Your task to perform on an android device: check battery use Image 0: 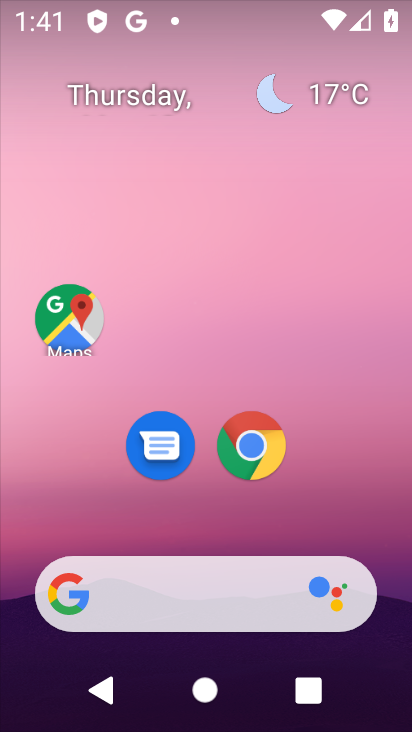
Step 0: drag from (318, 495) to (273, 39)
Your task to perform on an android device: check battery use Image 1: 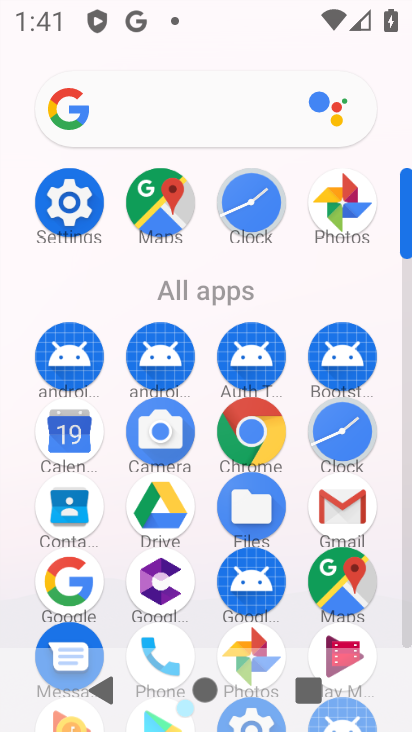
Step 1: click (78, 207)
Your task to perform on an android device: check battery use Image 2: 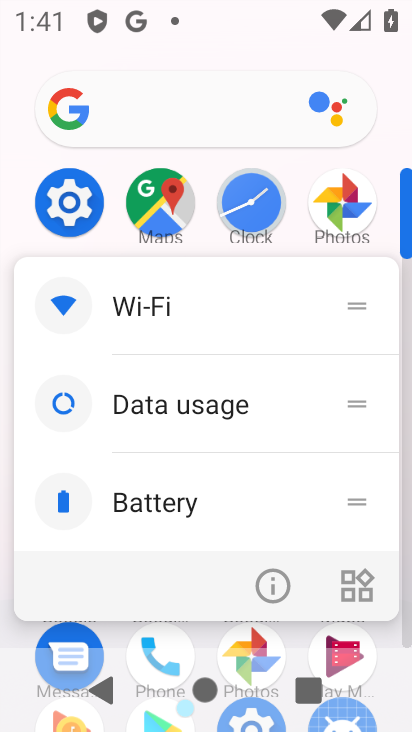
Step 2: click (71, 207)
Your task to perform on an android device: check battery use Image 3: 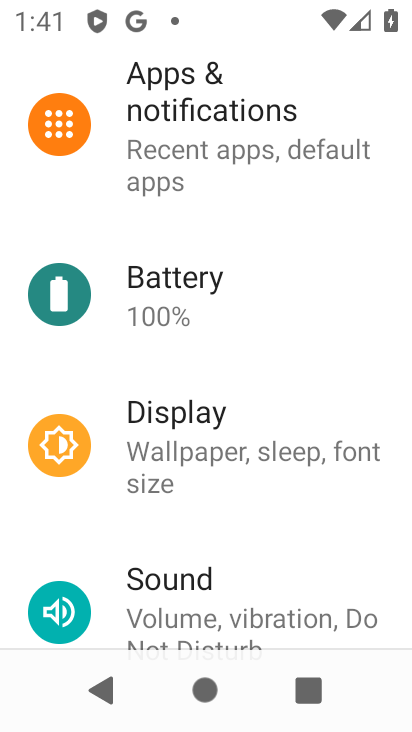
Step 3: click (174, 272)
Your task to perform on an android device: check battery use Image 4: 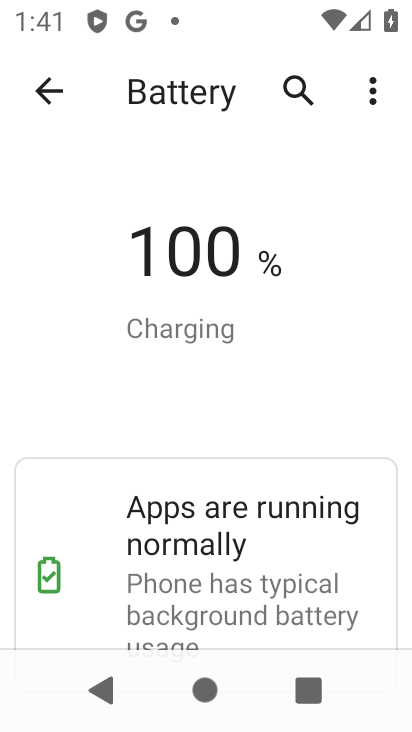
Step 4: task complete